Your task to perform on an android device: turn off smart reply in the gmail app Image 0: 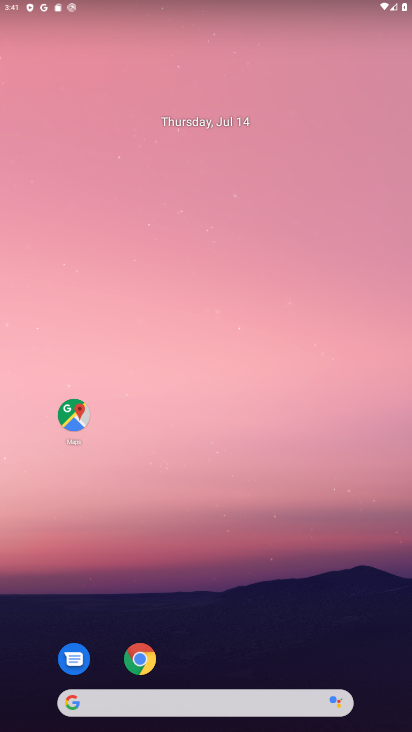
Step 0: drag from (308, 604) to (315, 101)
Your task to perform on an android device: turn off smart reply in the gmail app Image 1: 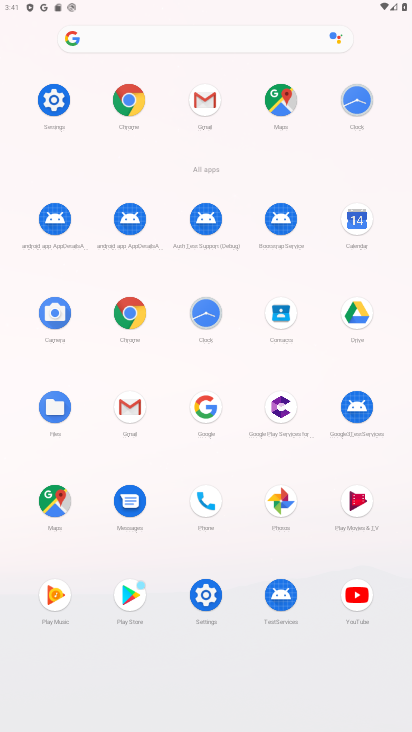
Step 1: click (136, 404)
Your task to perform on an android device: turn off smart reply in the gmail app Image 2: 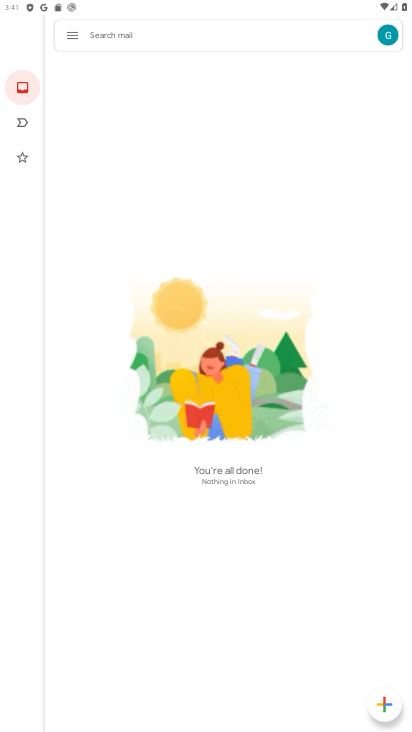
Step 2: click (69, 39)
Your task to perform on an android device: turn off smart reply in the gmail app Image 3: 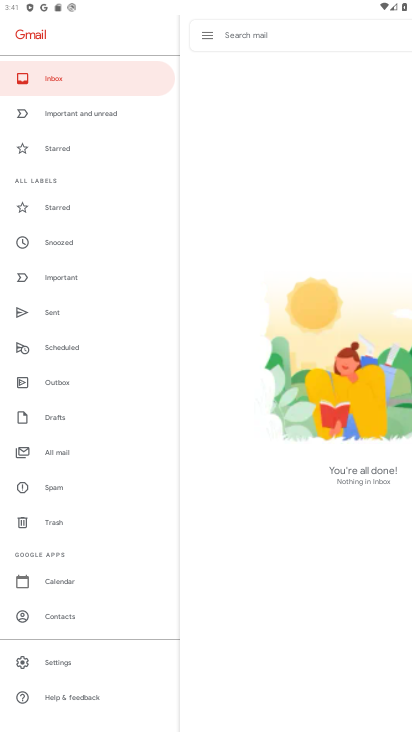
Step 3: click (91, 663)
Your task to perform on an android device: turn off smart reply in the gmail app Image 4: 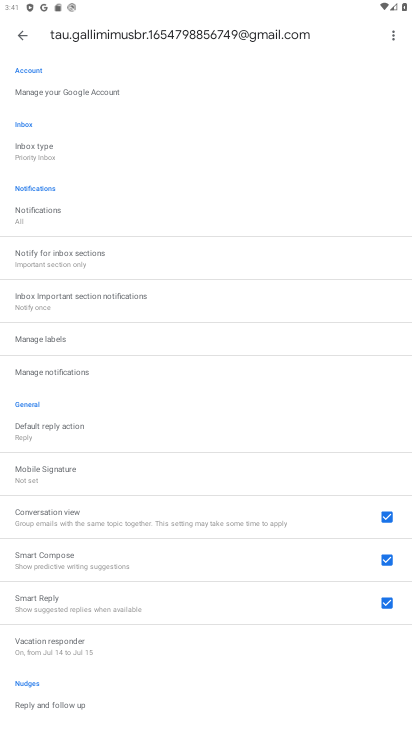
Step 4: drag from (241, 657) to (249, 488)
Your task to perform on an android device: turn off smart reply in the gmail app Image 5: 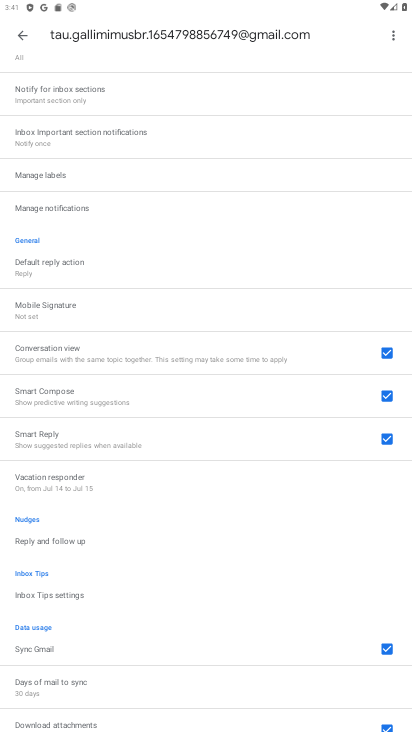
Step 5: drag from (241, 611) to (236, 498)
Your task to perform on an android device: turn off smart reply in the gmail app Image 6: 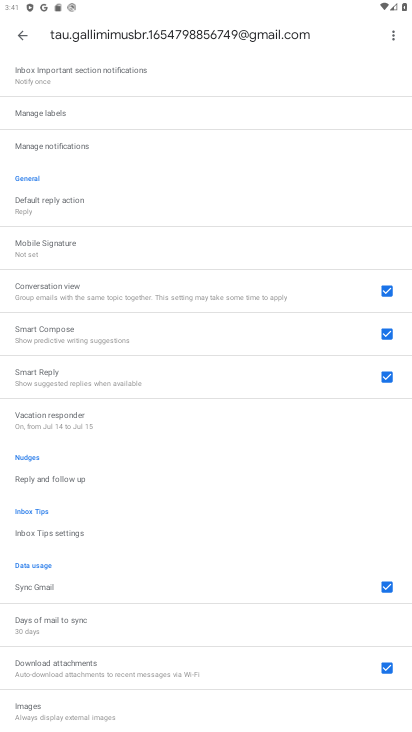
Step 6: drag from (251, 566) to (254, 451)
Your task to perform on an android device: turn off smart reply in the gmail app Image 7: 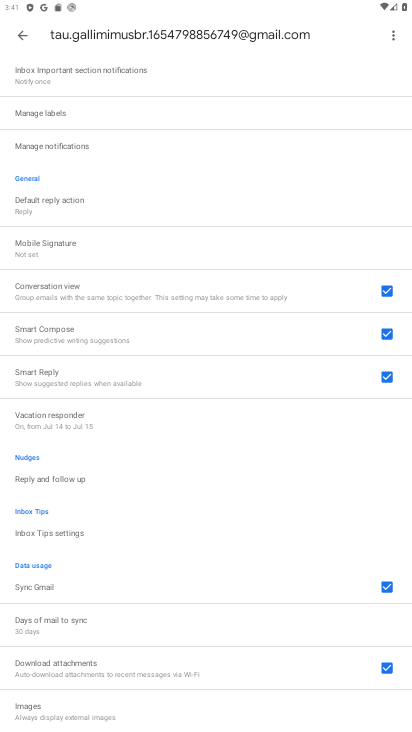
Step 7: drag from (253, 425) to (253, 517)
Your task to perform on an android device: turn off smart reply in the gmail app Image 8: 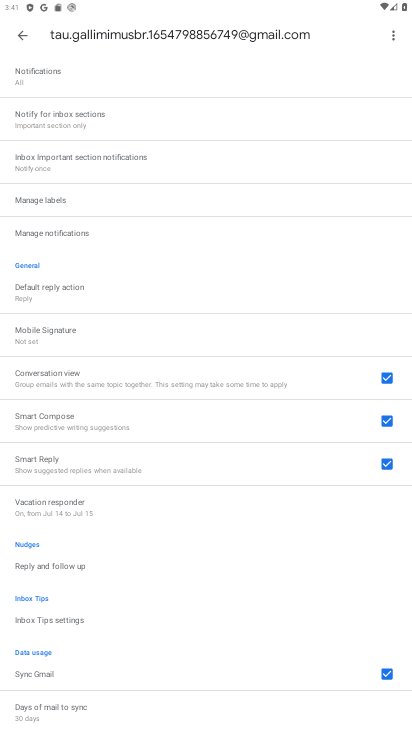
Step 8: click (383, 468)
Your task to perform on an android device: turn off smart reply in the gmail app Image 9: 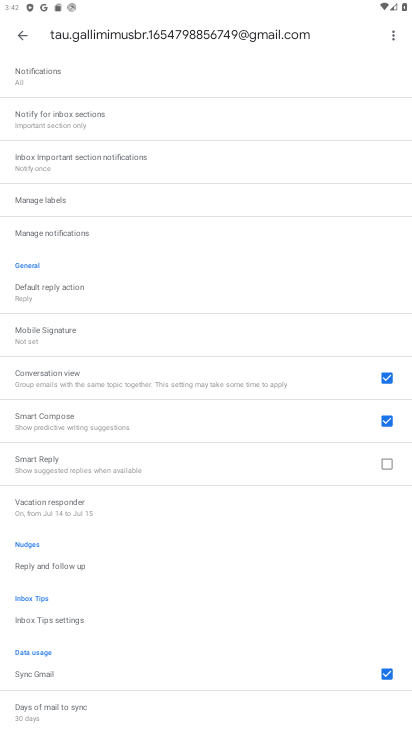
Step 9: task complete